Your task to perform on an android device: turn off smart reply in the gmail app Image 0: 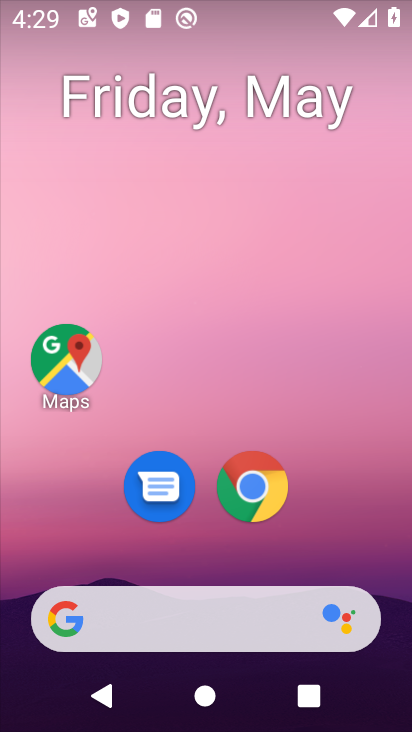
Step 0: drag from (352, 449) to (325, 26)
Your task to perform on an android device: turn off smart reply in the gmail app Image 1: 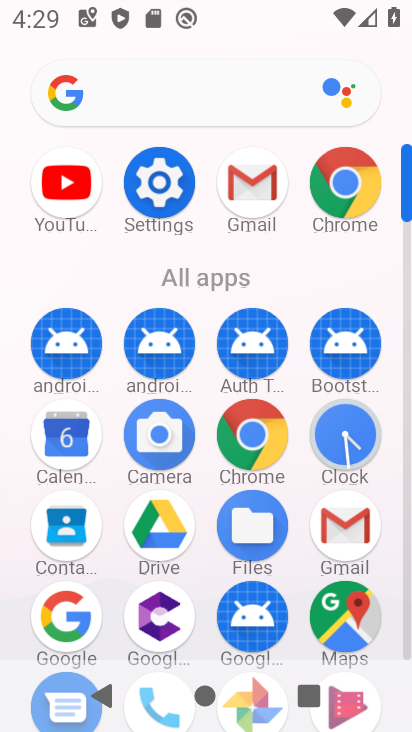
Step 1: drag from (9, 573) to (12, 208)
Your task to perform on an android device: turn off smart reply in the gmail app Image 2: 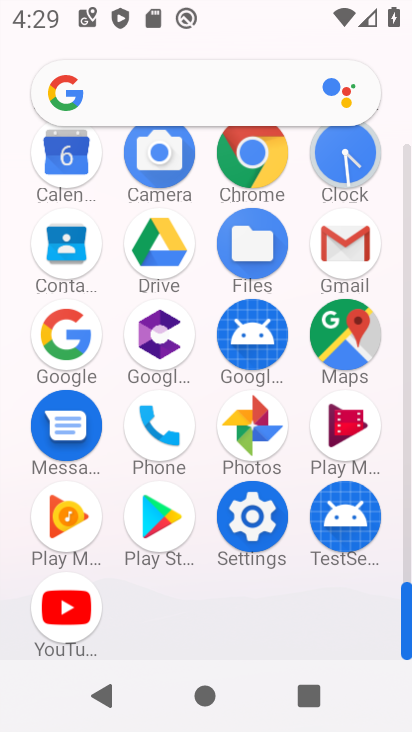
Step 2: click (344, 240)
Your task to perform on an android device: turn off smart reply in the gmail app Image 3: 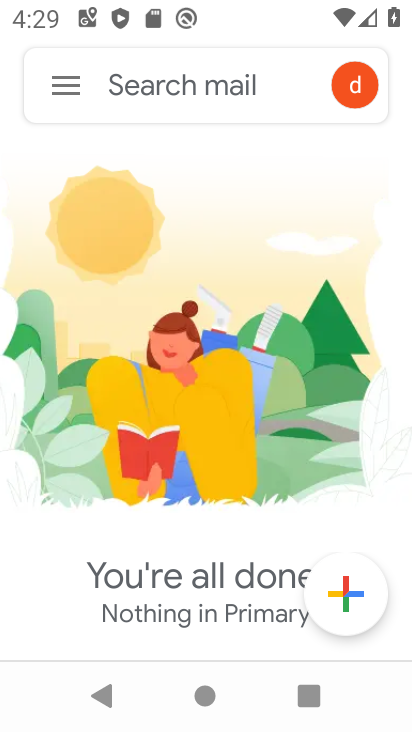
Step 3: click (53, 89)
Your task to perform on an android device: turn off smart reply in the gmail app Image 4: 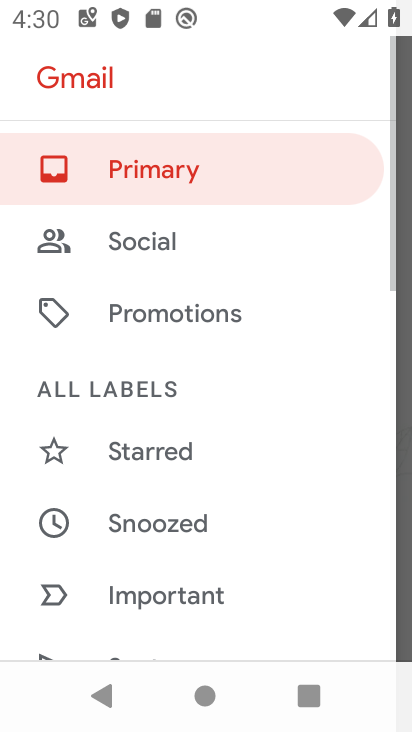
Step 4: drag from (285, 587) to (290, 184)
Your task to perform on an android device: turn off smart reply in the gmail app Image 5: 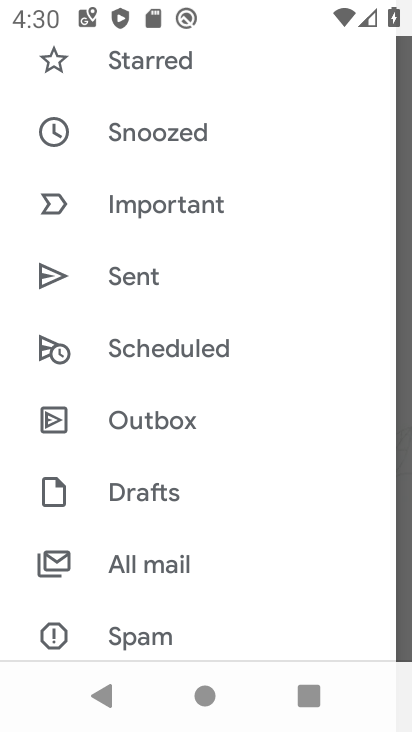
Step 5: drag from (216, 578) to (254, 121)
Your task to perform on an android device: turn off smart reply in the gmail app Image 6: 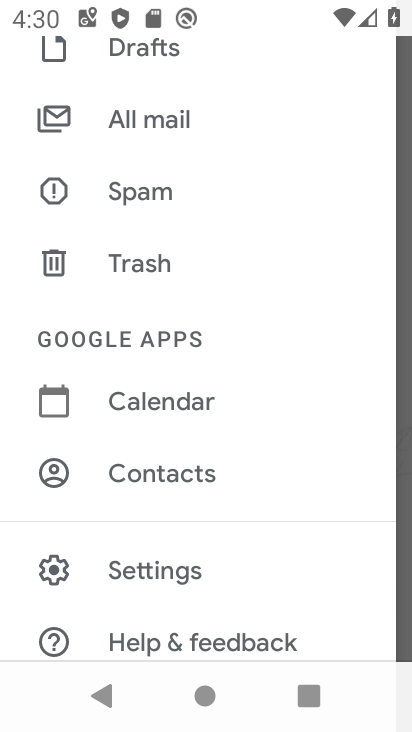
Step 6: click (169, 577)
Your task to perform on an android device: turn off smart reply in the gmail app Image 7: 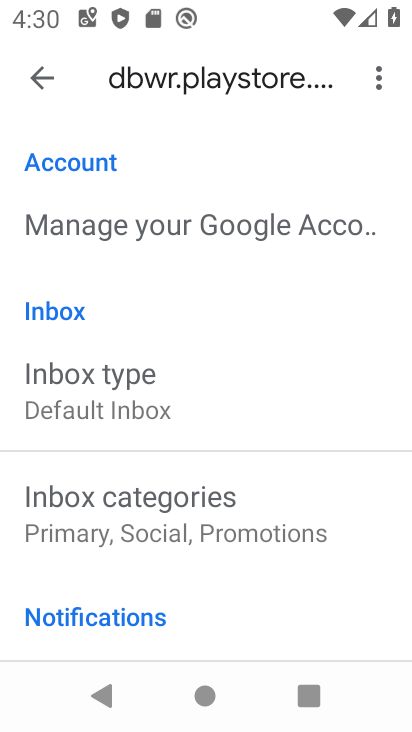
Step 7: drag from (263, 552) to (278, 150)
Your task to perform on an android device: turn off smart reply in the gmail app Image 8: 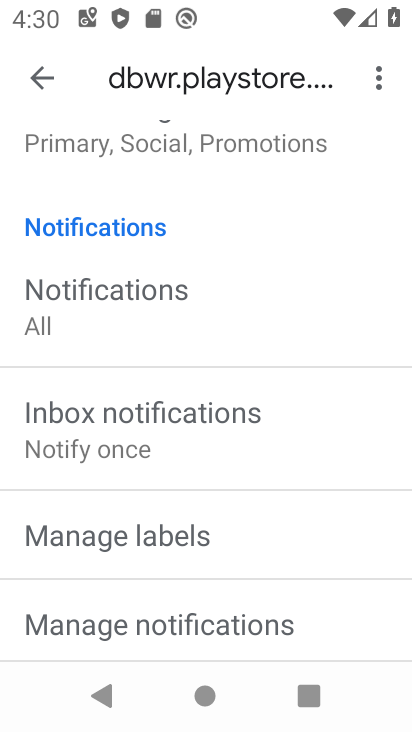
Step 8: drag from (249, 547) to (297, 174)
Your task to perform on an android device: turn off smart reply in the gmail app Image 9: 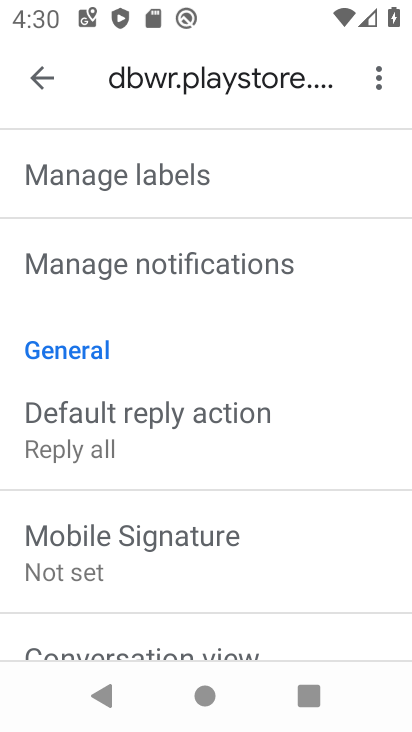
Step 9: drag from (233, 359) to (251, 128)
Your task to perform on an android device: turn off smart reply in the gmail app Image 10: 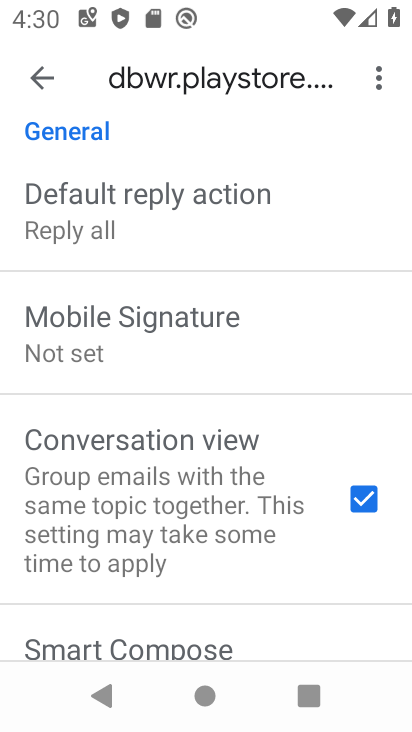
Step 10: drag from (265, 516) to (265, 116)
Your task to perform on an android device: turn off smart reply in the gmail app Image 11: 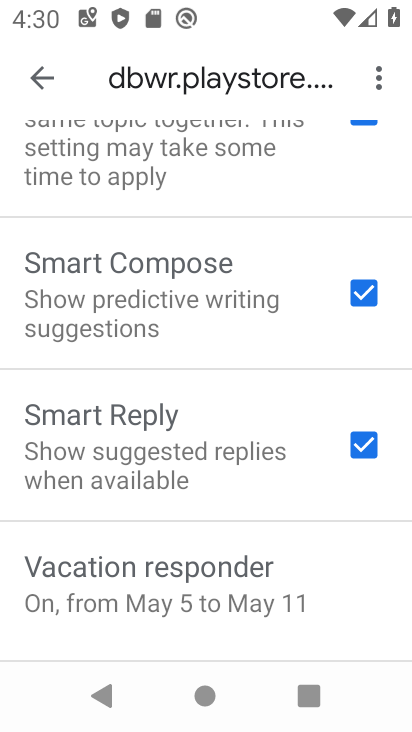
Step 11: drag from (172, 553) to (250, 135)
Your task to perform on an android device: turn off smart reply in the gmail app Image 12: 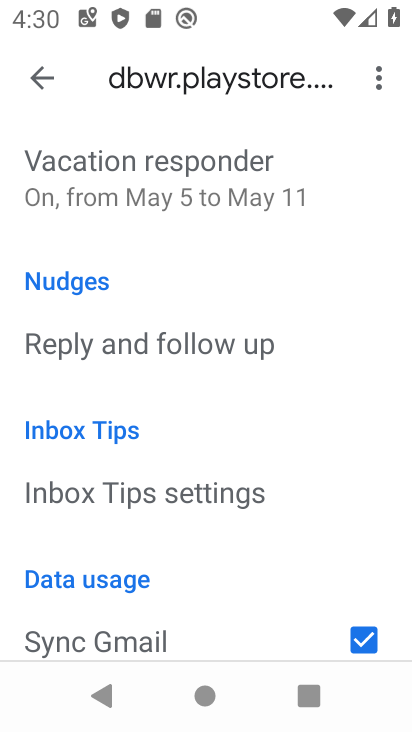
Step 12: drag from (256, 586) to (292, 215)
Your task to perform on an android device: turn off smart reply in the gmail app Image 13: 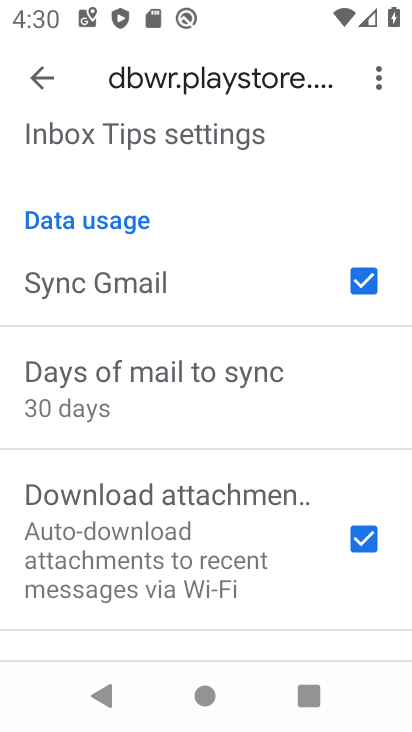
Step 13: drag from (198, 558) to (272, 89)
Your task to perform on an android device: turn off smart reply in the gmail app Image 14: 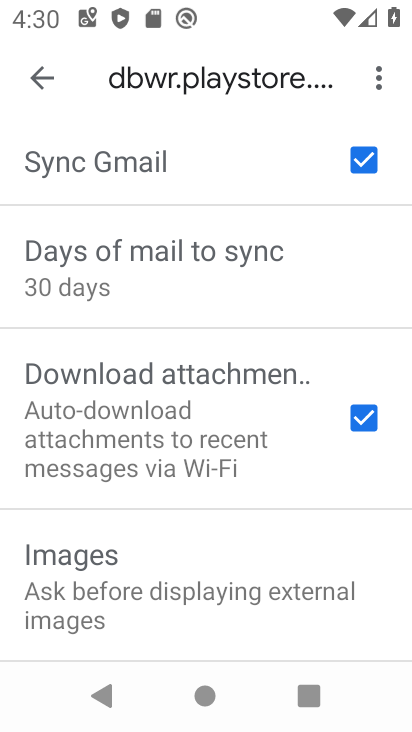
Step 14: drag from (165, 499) to (230, 126)
Your task to perform on an android device: turn off smart reply in the gmail app Image 15: 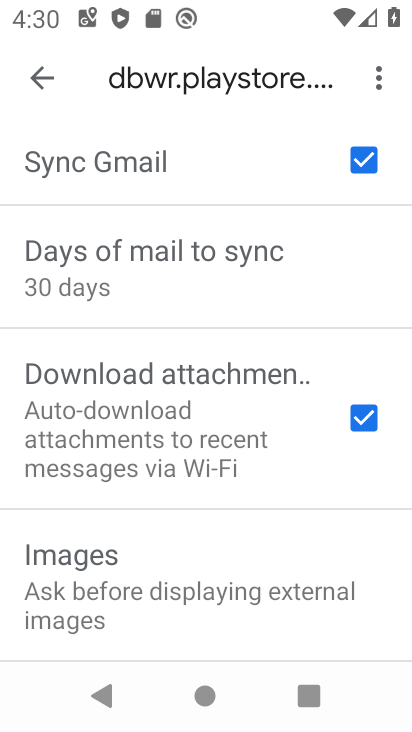
Step 15: drag from (225, 149) to (220, 566)
Your task to perform on an android device: turn off smart reply in the gmail app Image 16: 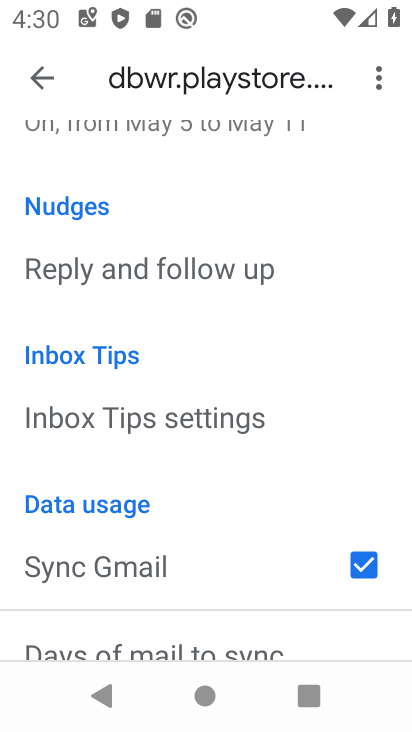
Step 16: drag from (270, 175) to (248, 547)
Your task to perform on an android device: turn off smart reply in the gmail app Image 17: 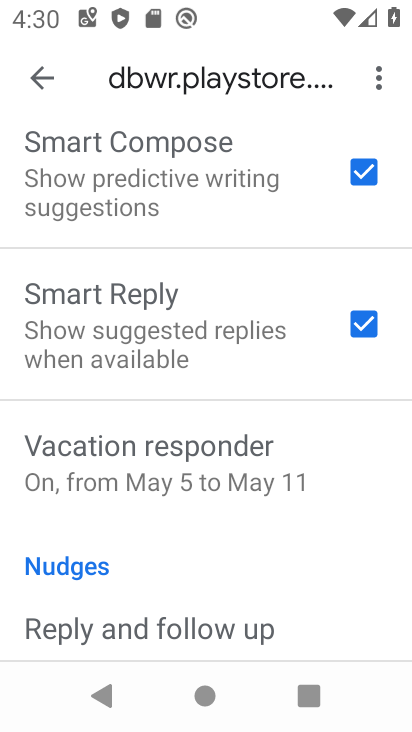
Step 17: drag from (236, 238) to (245, 597)
Your task to perform on an android device: turn off smart reply in the gmail app Image 18: 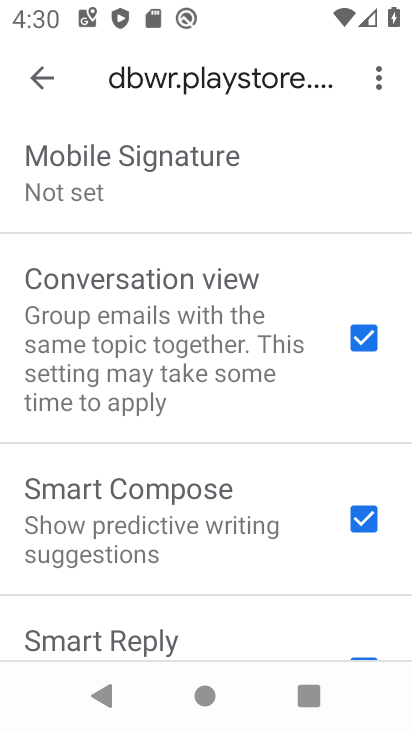
Step 18: drag from (225, 554) to (255, 241)
Your task to perform on an android device: turn off smart reply in the gmail app Image 19: 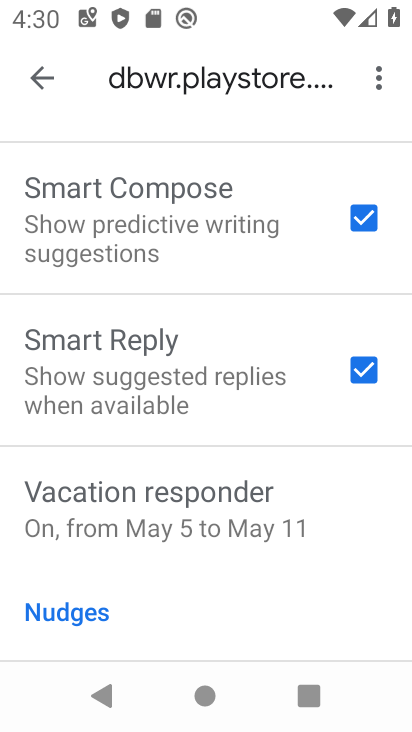
Step 19: click (356, 382)
Your task to perform on an android device: turn off smart reply in the gmail app Image 20: 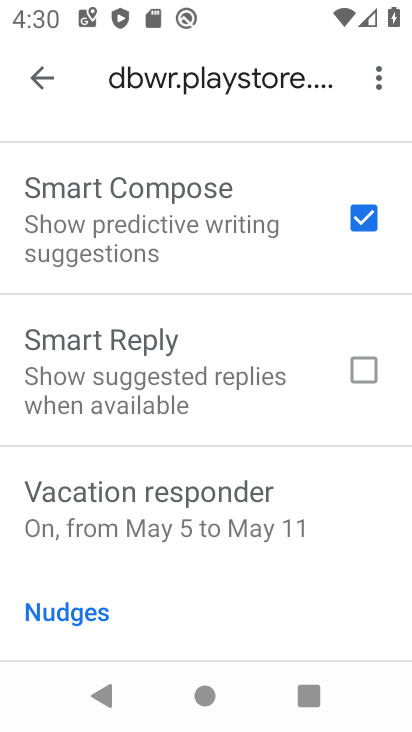
Step 20: task complete